Your task to perform on an android device: Go to location settings Image 0: 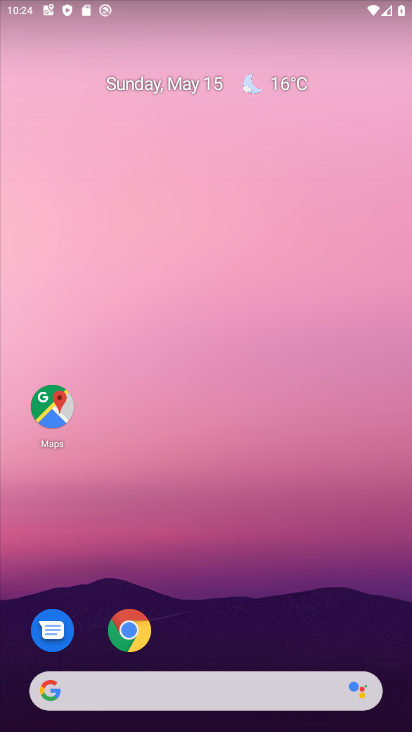
Step 0: drag from (217, 603) to (243, 187)
Your task to perform on an android device: Go to location settings Image 1: 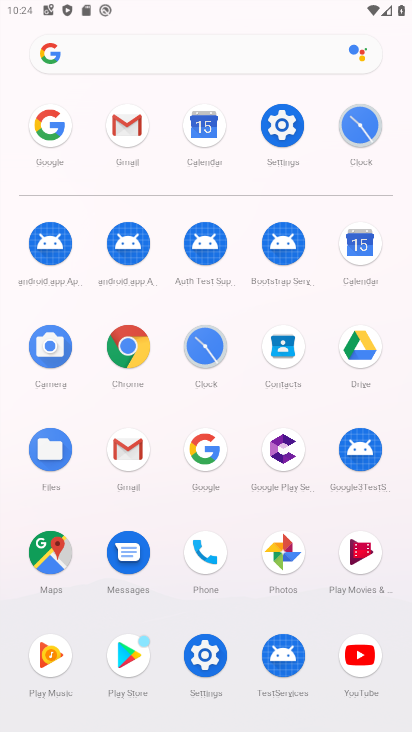
Step 1: click (277, 126)
Your task to perform on an android device: Go to location settings Image 2: 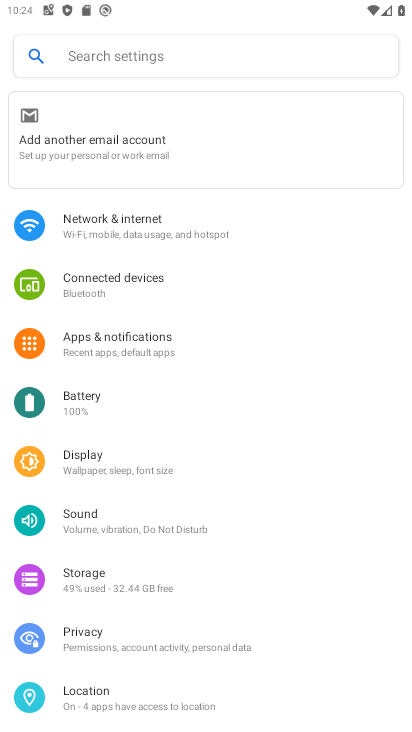
Step 2: click (129, 700)
Your task to perform on an android device: Go to location settings Image 3: 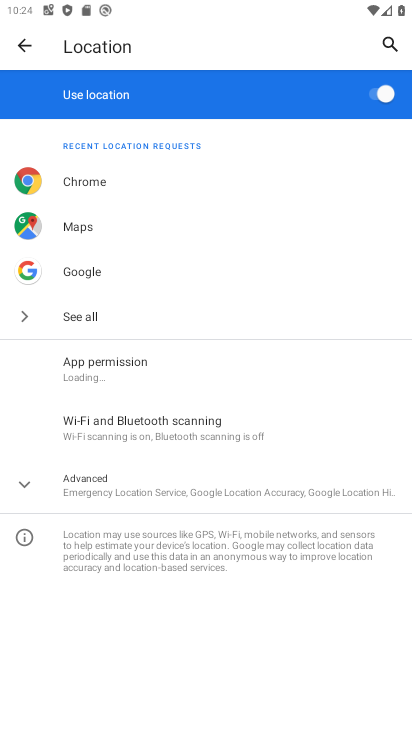
Step 3: task complete